Your task to perform on an android device: turn off location Image 0: 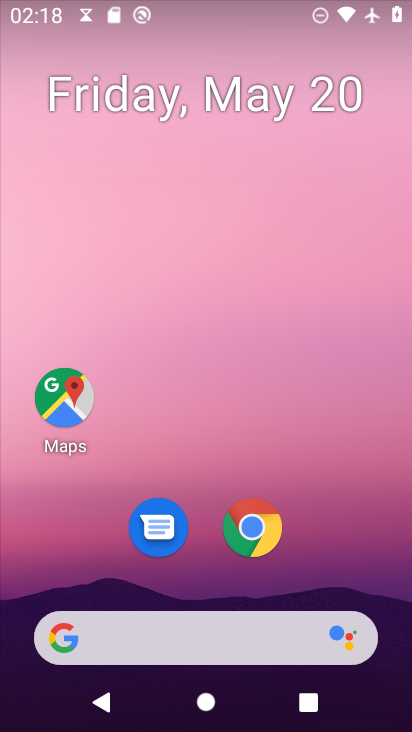
Step 0: press home button
Your task to perform on an android device: turn off location Image 1: 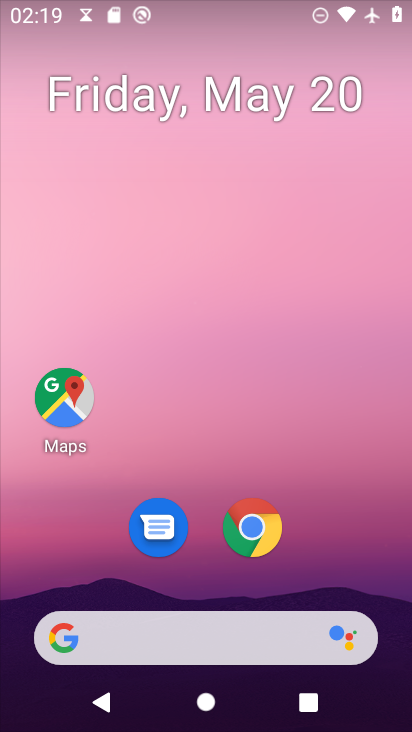
Step 1: drag from (202, 654) to (197, 176)
Your task to perform on an android device: turn off location Image 2: 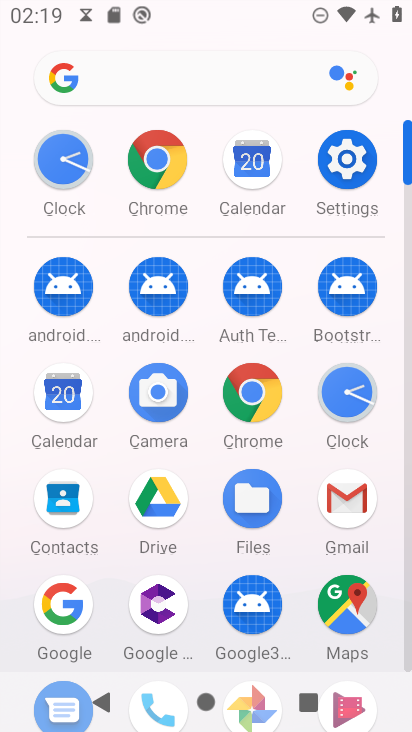
Step 2: click (356, 165)
Your task to perform on an android device: turn off location Image 3: 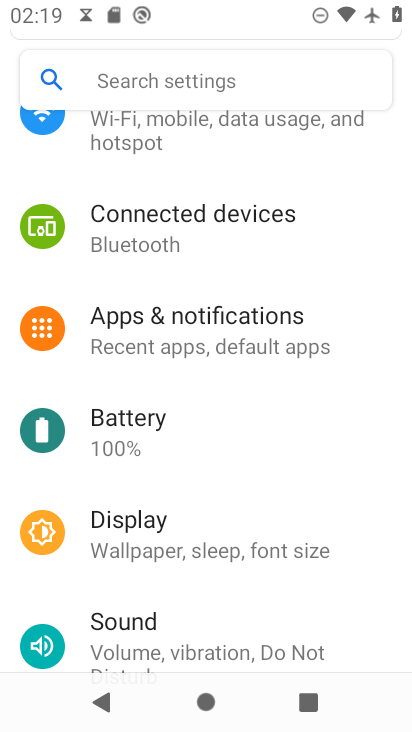
Step 3: drag from (213, 543) to (318, 95)
Your task to perform on an android device: turn off location Image 4: 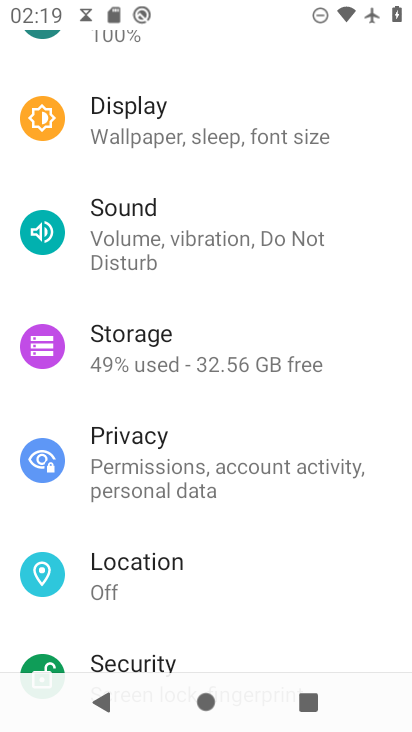
Step 4: click (152, 564)
Your task to perform on an android device: turn off location Image 5: 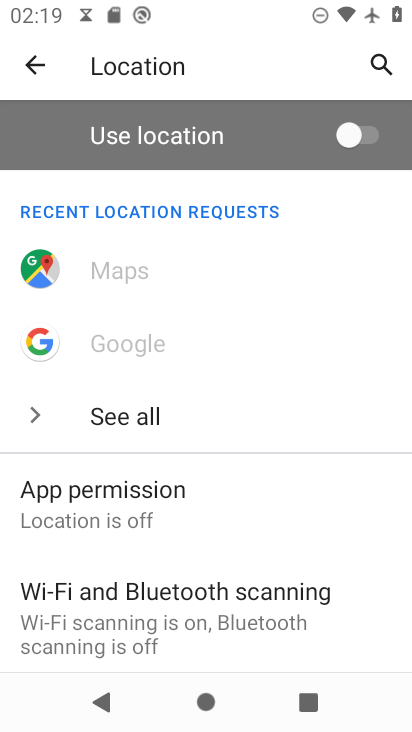
Step 5: task complete